Your task to perform on an android device: see creations saved in the google photos Image 0: 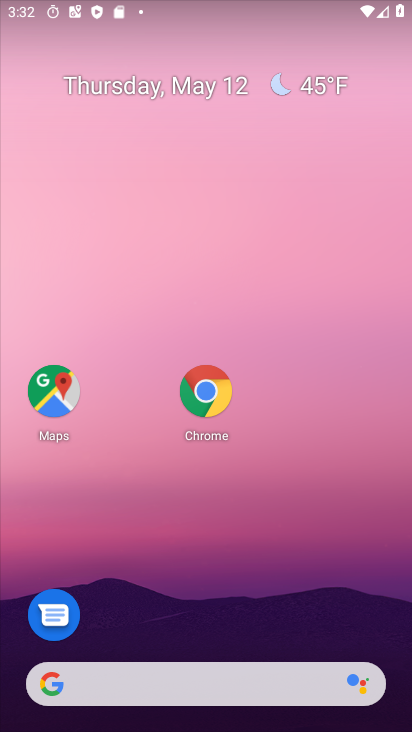
Step 0: drag from (184, 607) to (159, 112)
Your task to perform on an android device: see creations saved in the google photos Image 1: 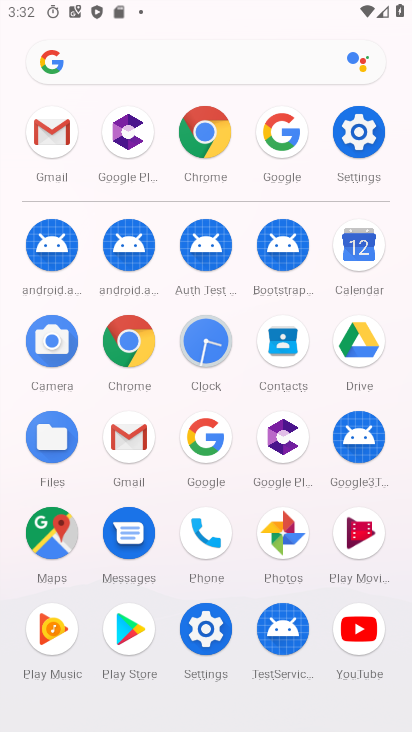
Step 1: click (286, 527)
Your task to perform on an android device: see creations saved in the google photos Image 2: 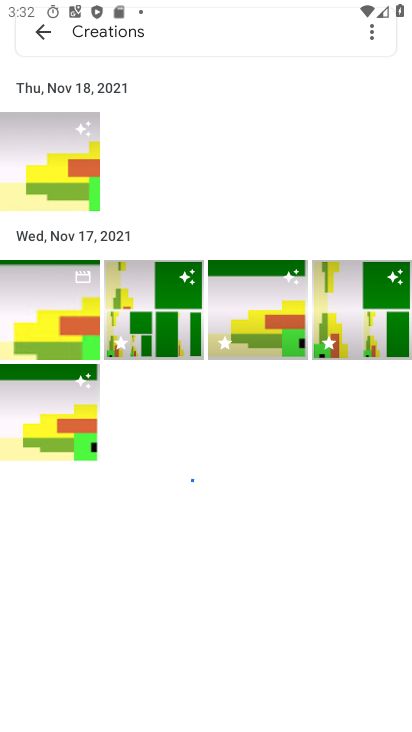
Step 2: task complete